Your task to perform on an android device: set an alarm Image 0: 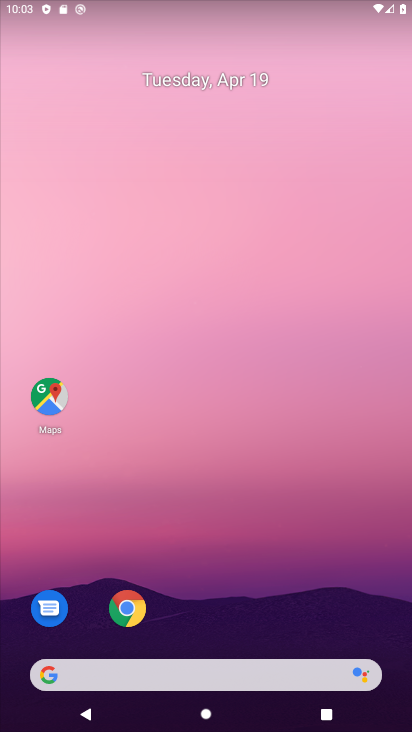
Step 0: drag from (204, 482) to (197, 194)
Your task to perform on an android device: set an alarm Image 1: 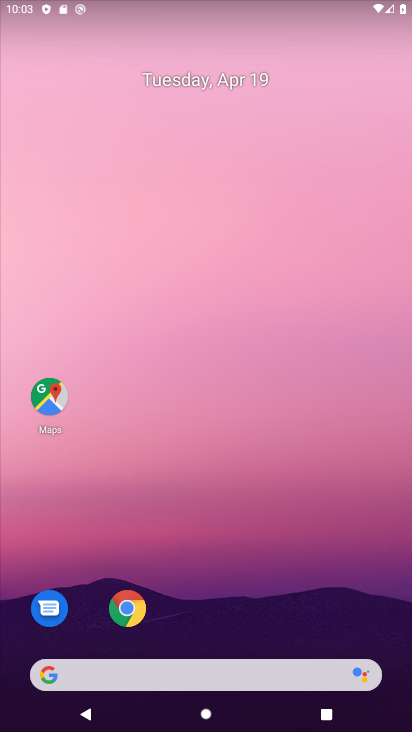
Step 1: drag from (240, 596) to (235, 20)
Your task to perform on an android device: set an alarm Image 2: 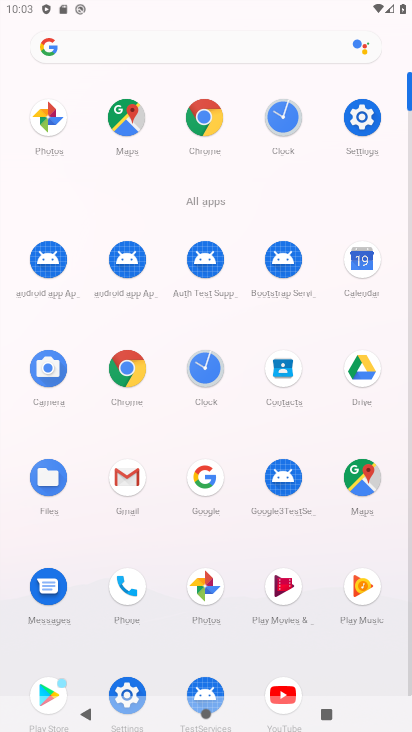
Step 2: click (285, 115)
Your task to perform on an android device: set an alarm Image 3: 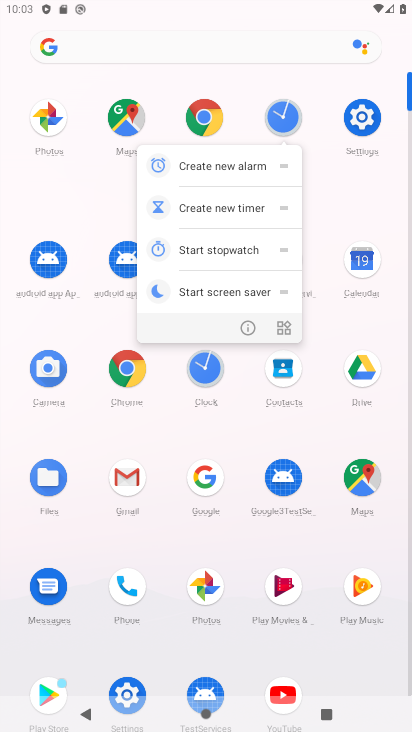
Step 3: click (285, 115)
Your task to perform on an android device: set an alarm Image 4: 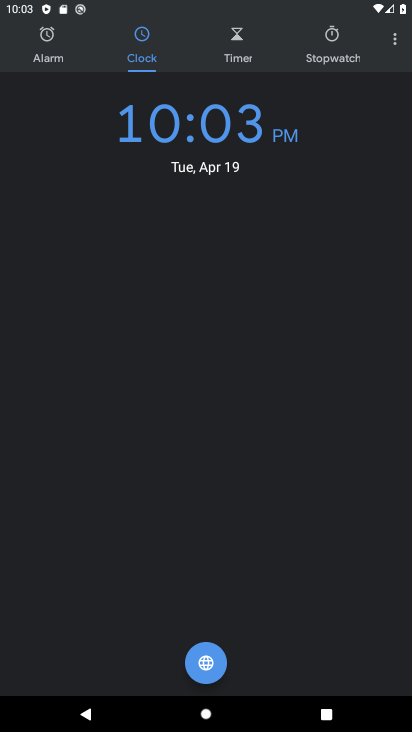
Step 4: click (45, 46)
Your task to perform on an android device: set an alarm Image 5: 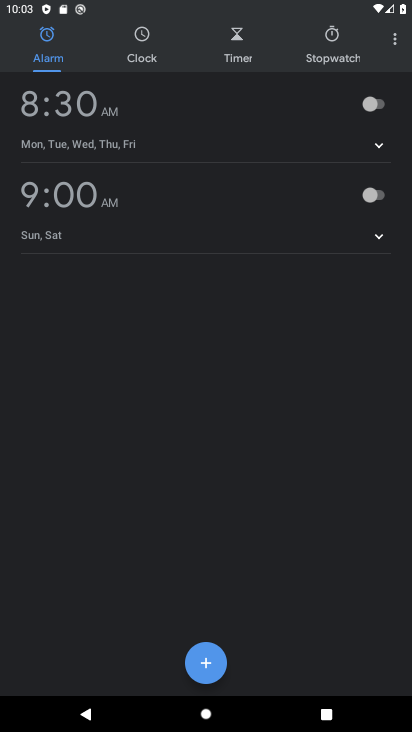
Step 5: click (374, 103)
Your task to perform on an android device: set an alarm Image 6: 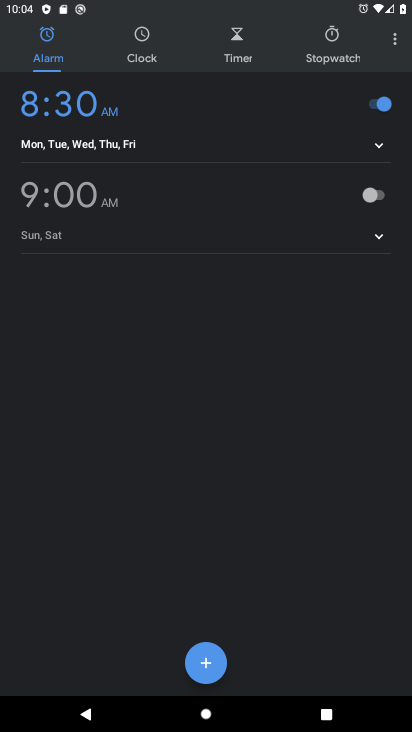
Step 6: task complete